Your task to perform on an android device: Open Chrome and go to settings Image 0: 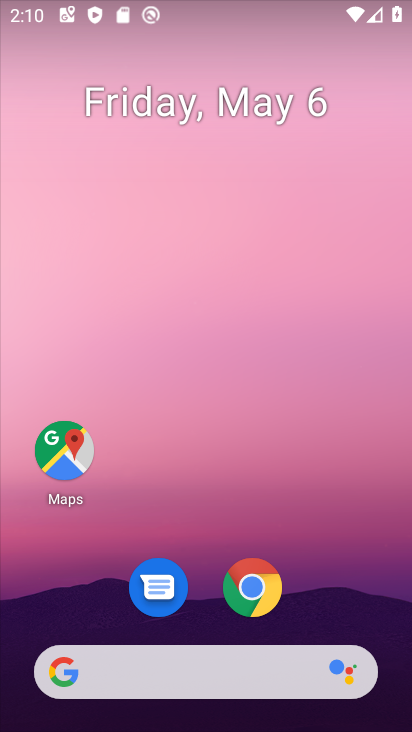
Step 0: drag from (331, 554) to (290, 62)
Your task to perform on an android device: Open Chrome and go to settings Image 1: 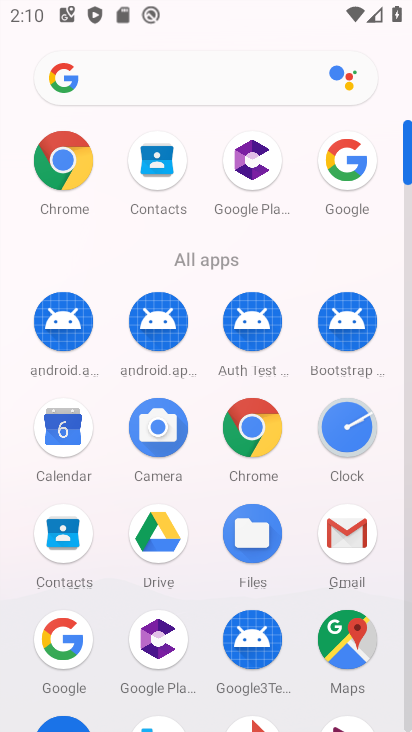
Step 1: click (76, 155)
Your task to perform on an android device: Open Chrome and go to settings Image 2: 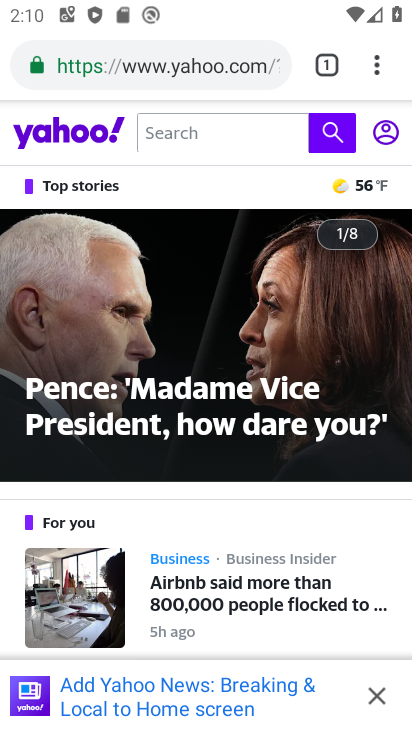
Step 2: task complete